Your task to perform on an android device: Go to sound settings Image 0: 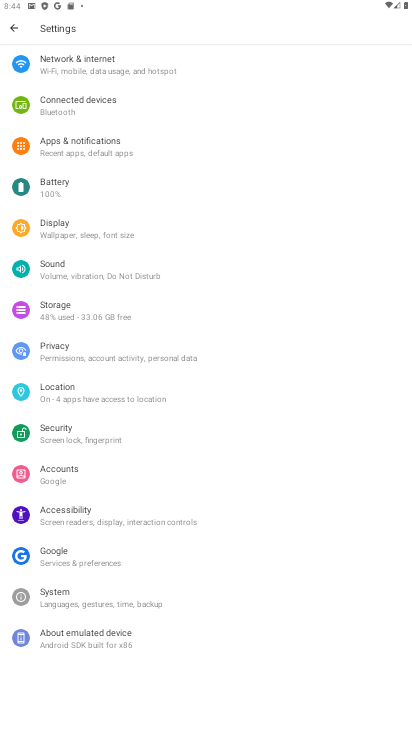
Step 0: click (39, 262)
Your task to perform on an android device: Go to sound settings Image 1: 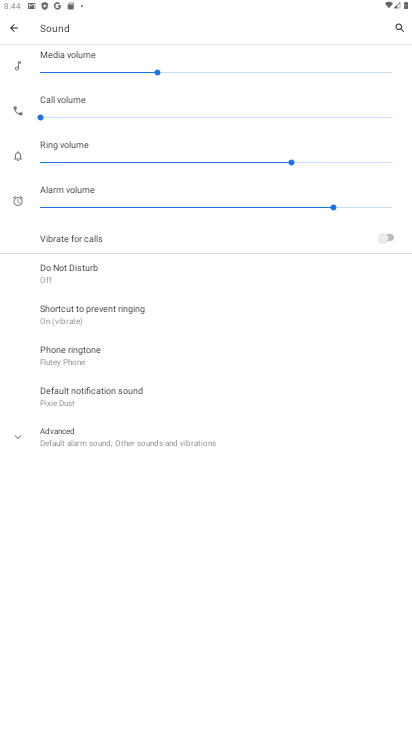
Step 1: task complete